Your task to perform on an android device: Add "energizer triple a" to the cart on walmart Image 0: 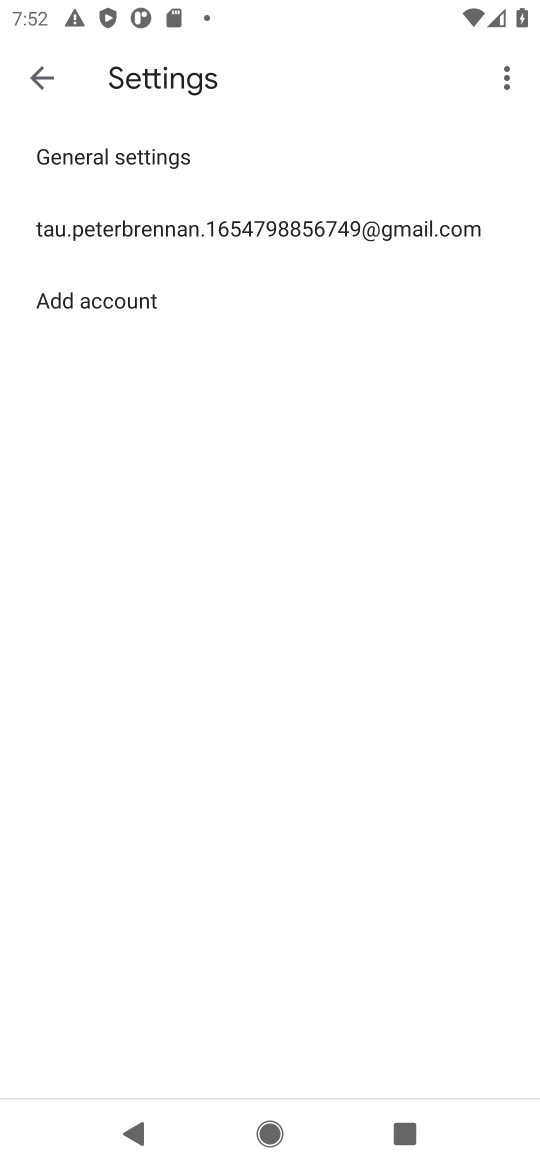
Step 0: press home button
Your task to perform on an android device: Add "energizer triple a" to the cart on walmart Image 1: 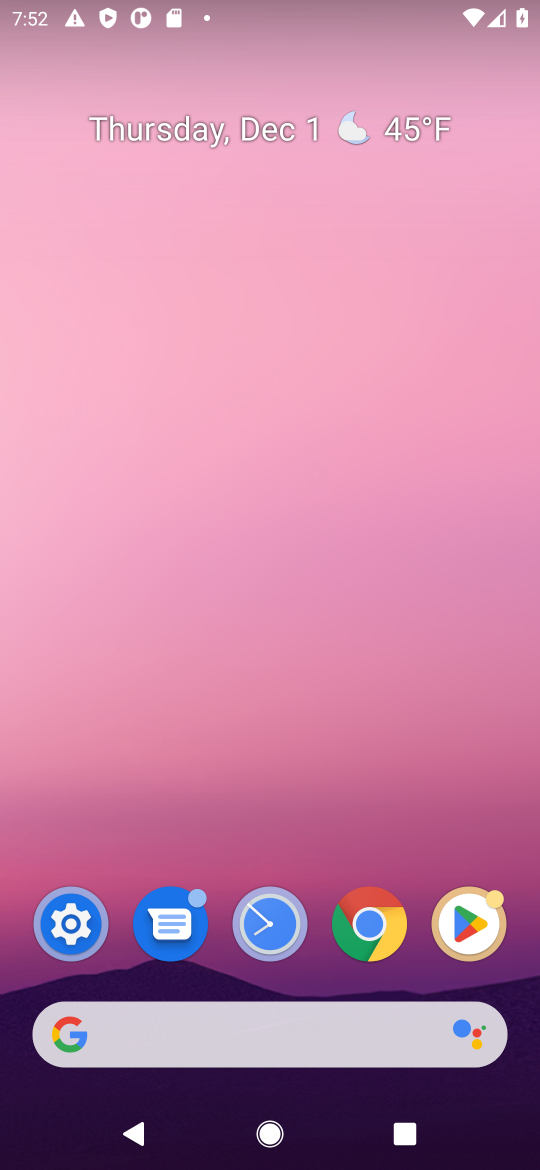
Step 1: click (231, 1050)
Your task to perform on an android device: Add "energizer triple a" to the cart on walmart Image 2: 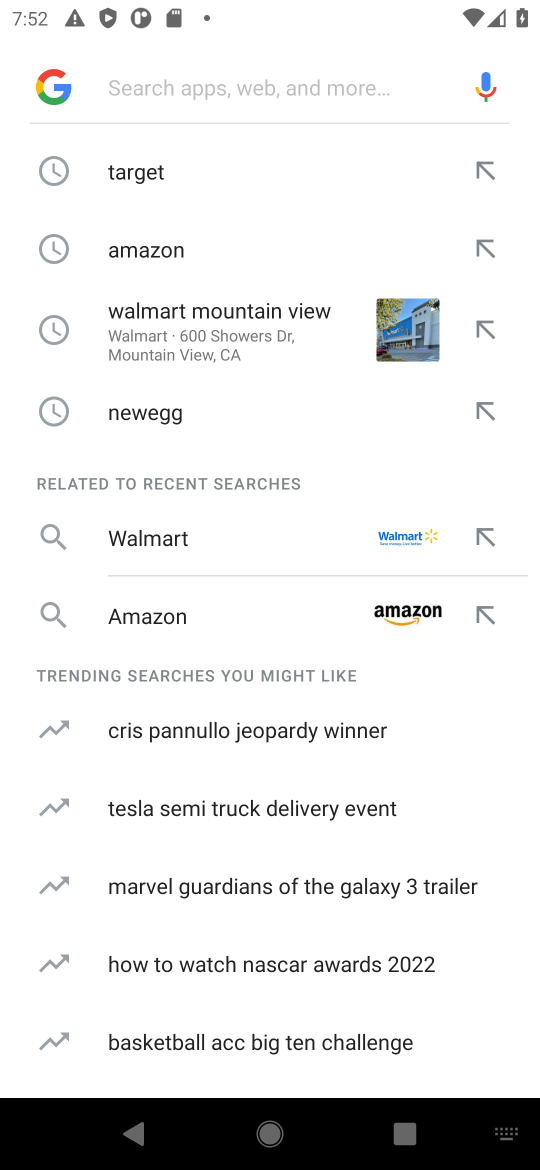
Step 2: type "walmart"
Your task to perform on an android device: Add "energizer triple a" to the cart on walmart Image 3: 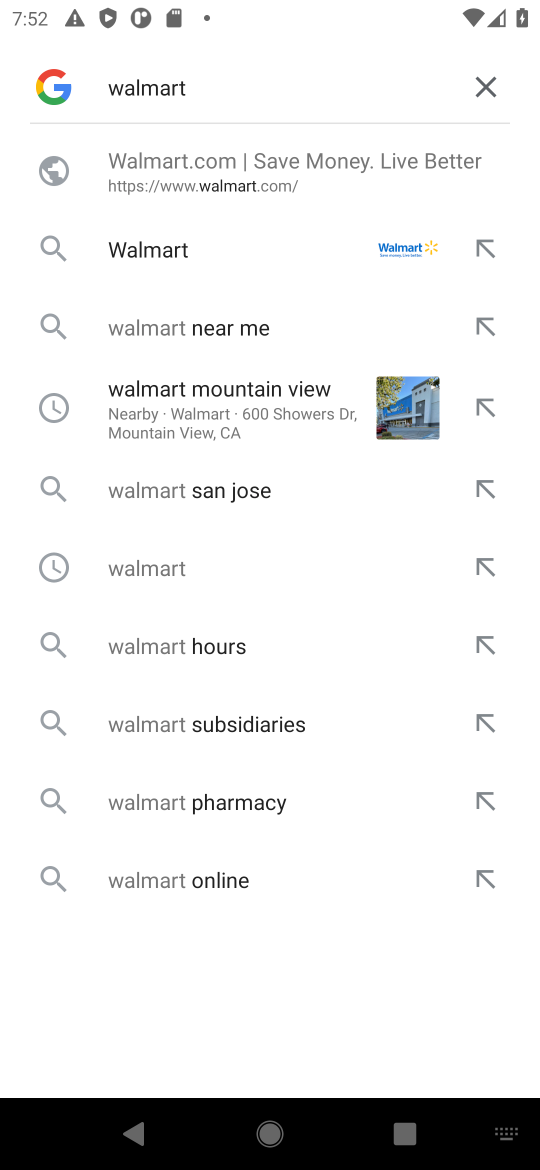
Step 3: click (199, 224)
Your task to perform on an android device: Add "energizer triple a" to the cart on walmart Image 4: 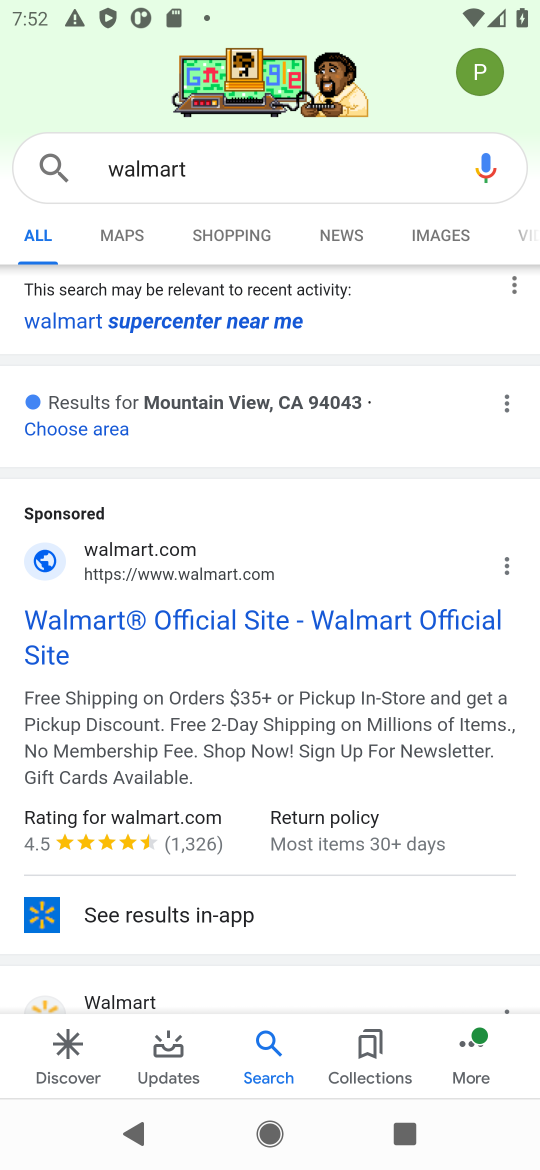
Step 4: click (103, 653)
Your task to perform on an android device: Add "energizer triple a" to the cart on walmart Image 5: 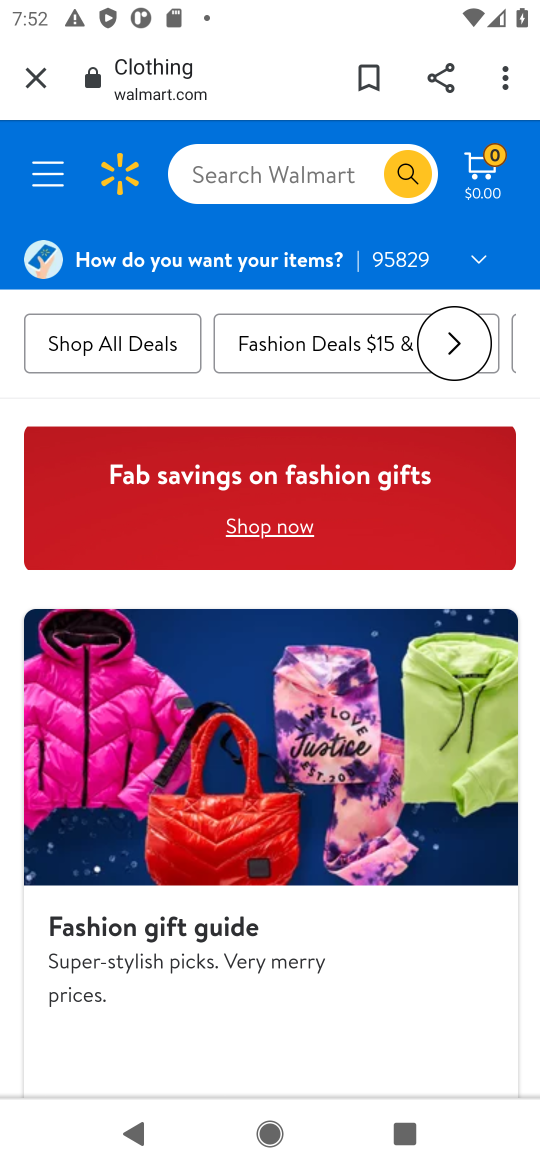
Step 5: click (254, 178)
Your task to perform on an android device: Add "energizer triple a" to the cart on walmart Image 6: 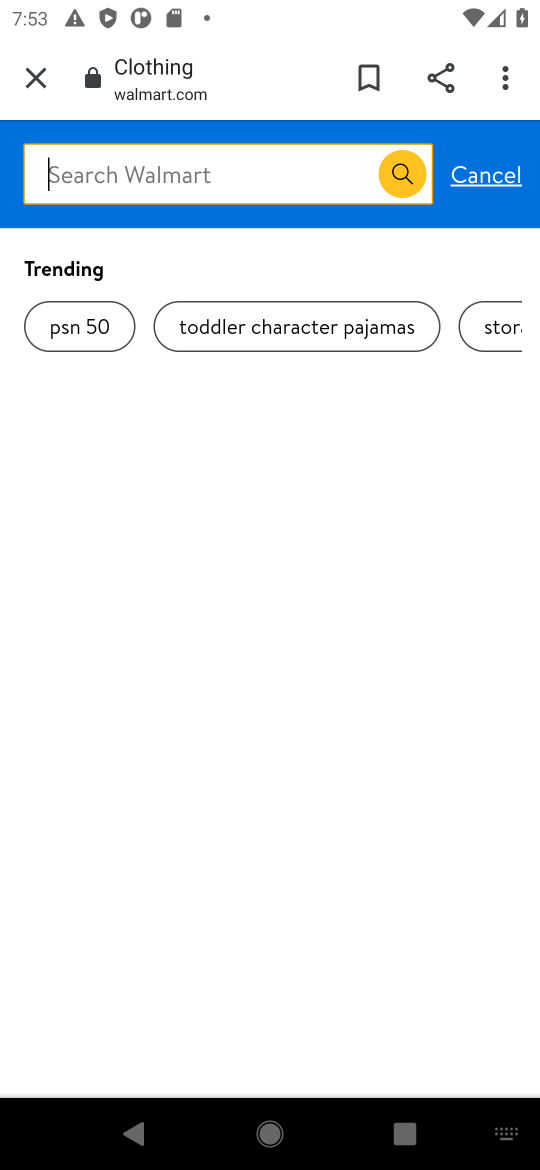
Step 6: type "energizer triple a"
Your task to perform on an android device: Add "energizer triple a" to the cart on walmart Image 7: 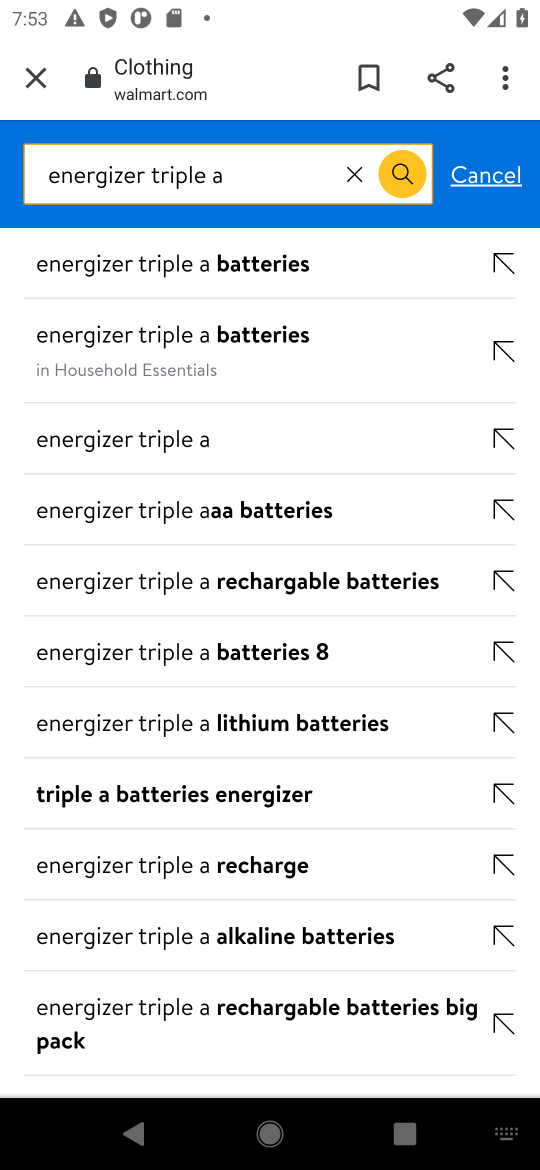
Step 7: click (140, 282)
Your task to perform on an android device: Add "energizer triple a" to the cart on walmart Image 8: 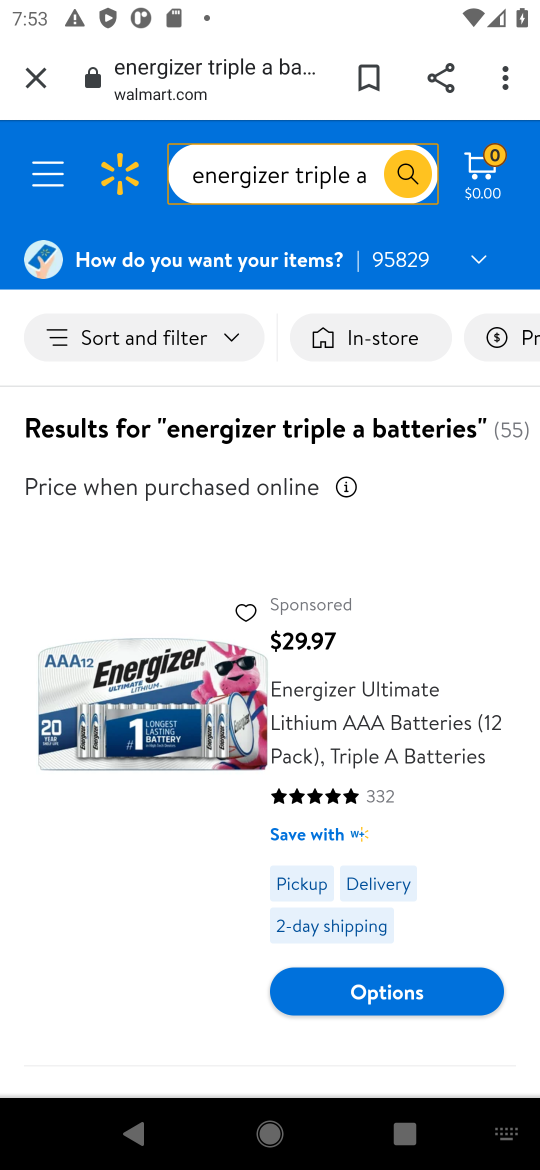
Step 8: click (346, 972)
Your task to perform on an android device: Add "energizer triple a" to the cart on walmart Image 9: 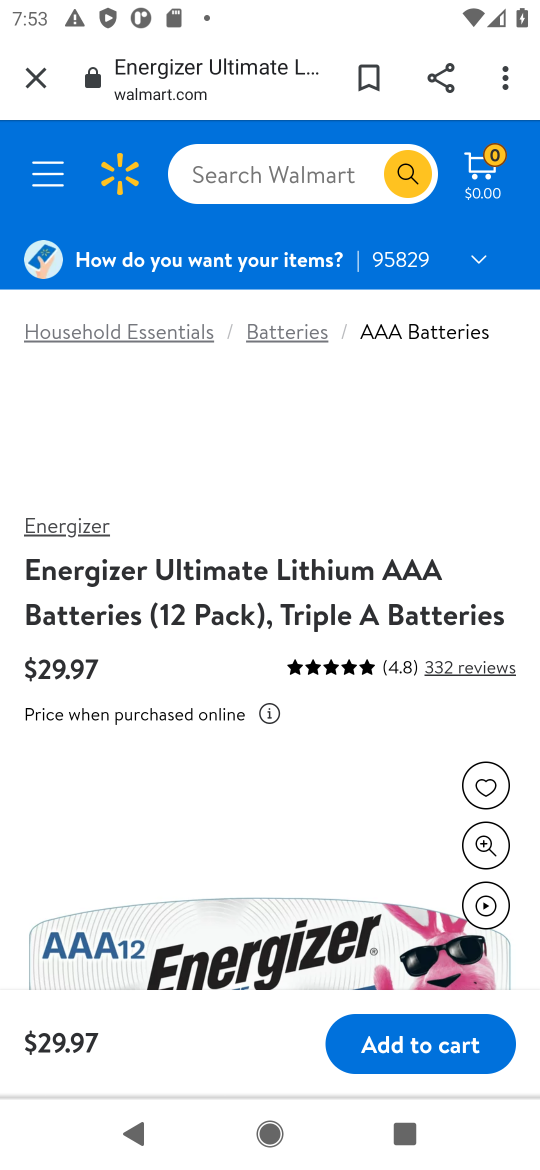
Step 9: click (386, 1039)
Your task to perform on an android device: Add "energizer triple a" to the cart on walmart Image 10: 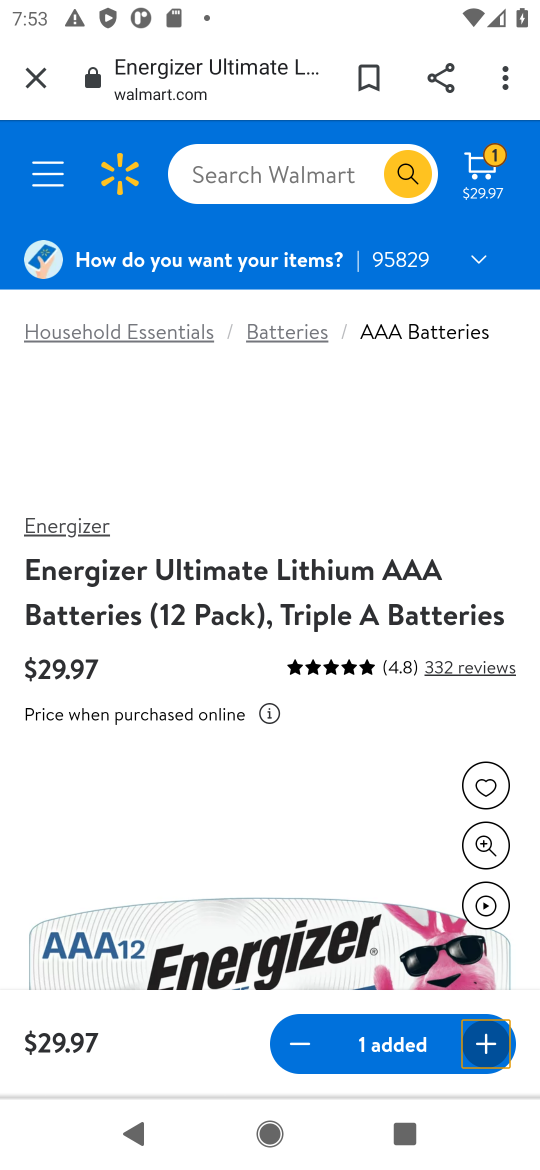
Step 10: task complete